Your task to perform on an android device: find photos in the google photos app Image 0: 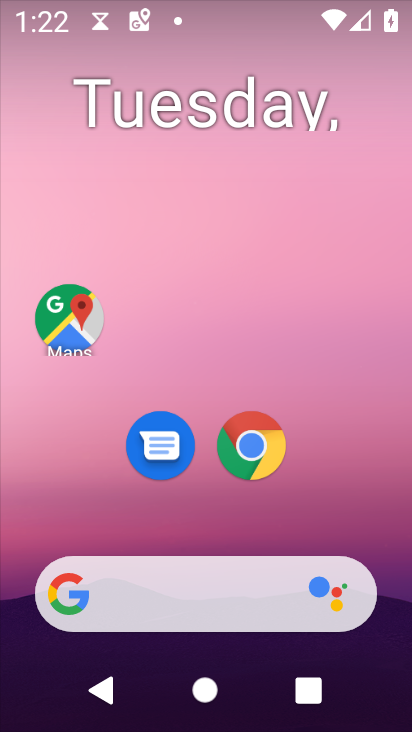
Step 0: drag from (307, 522) to (311, 0)
Your task to perform on an android device: find photos in the google photos app Image 1: 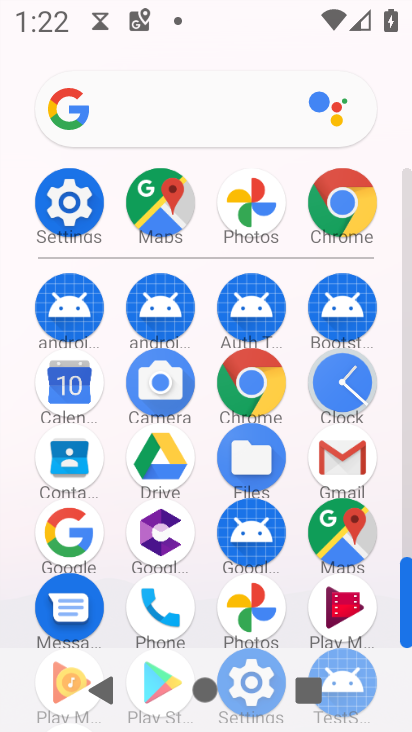
Step 1: click (243, 606)
Your task to perform on an android device: find photos in the google photos app Image 2: 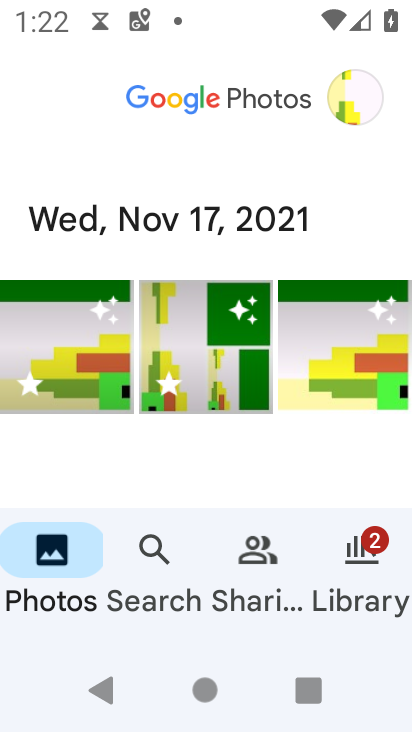
Step 2: task complete